Your task to perform on an android device: see tabs open on other devices in the chrome app Image 0: 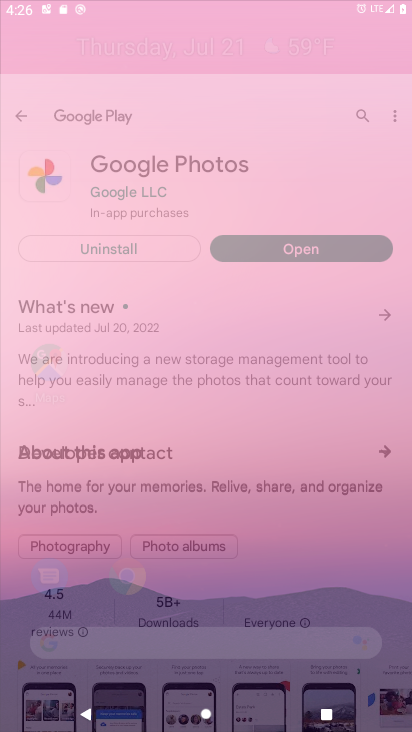
Step 0: drag from (239, 679) to (310, 98)
Your task to perform on an android device: see tabs open on other devices in the chrome app Image 1: 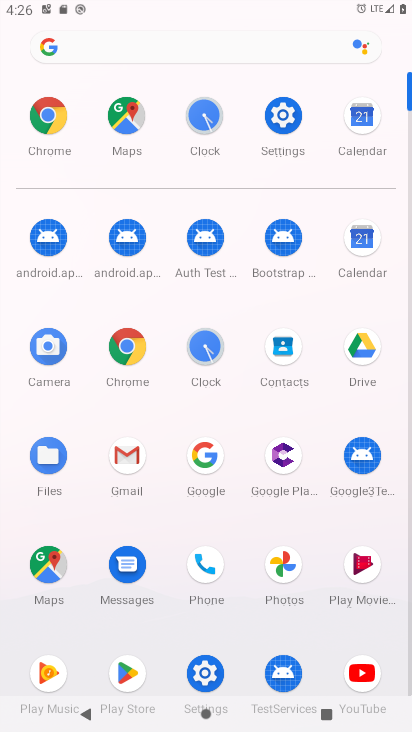
Step 1: click (118, 673)
Your task to perform on an android device: see tabs open on other devices in the chrome app Image 2: 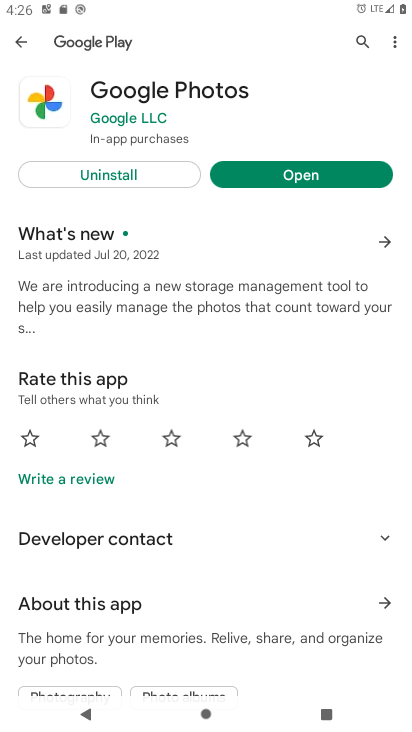
Step 2: press home button
Your task to perform on an android device: see tabs open on other devices in the chrome app Image 3: 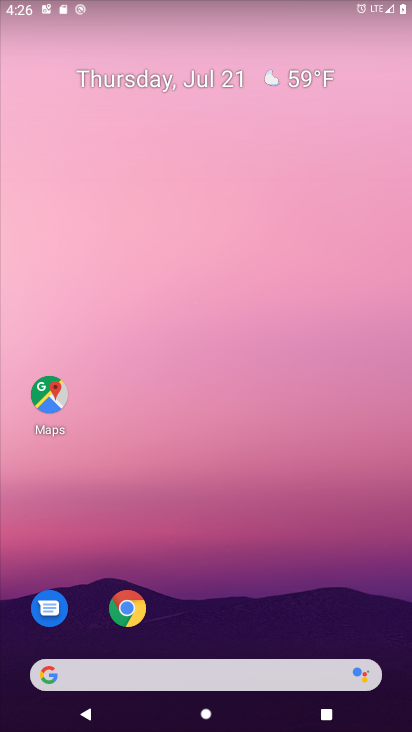
Step 3: drag from (206, 555) to (283, 150)
Your task to perform on an android device: see tabs open on other devices in the chrome app Image 4: 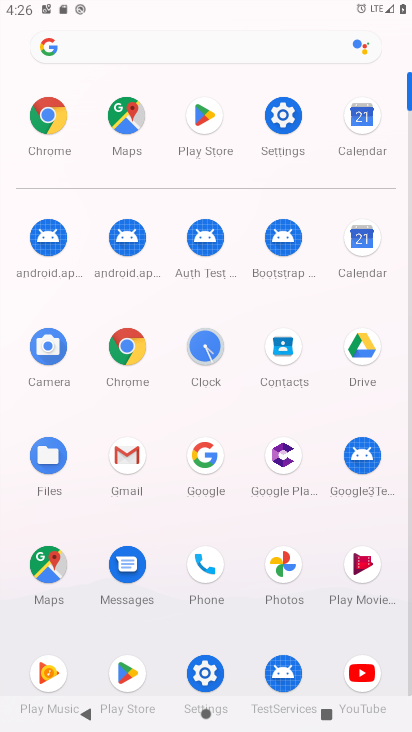
Step 4: click (138, 346)
Your task to perform on an android device: see tabs open on other devices in the chrome app Image 5: 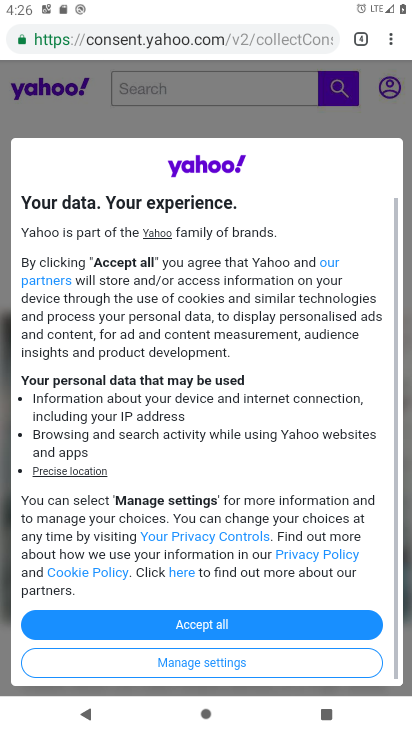
Step 5: task complete